Your task to perform on an android device: check android version Image 0: 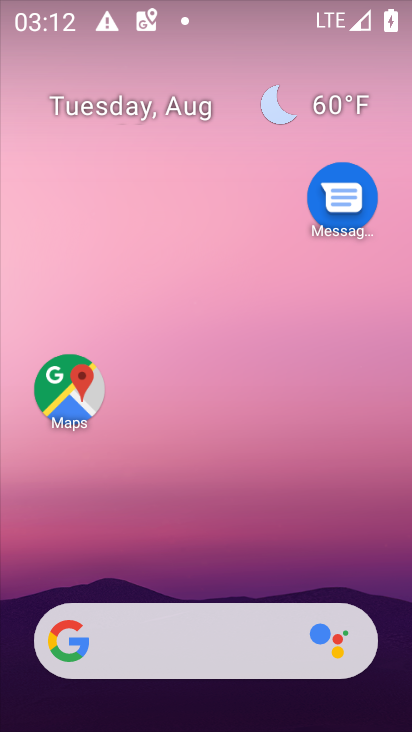
Step 0: drag from (190, 590) to (233, 1)
Your task to perform on an android device: check android version Image 1: 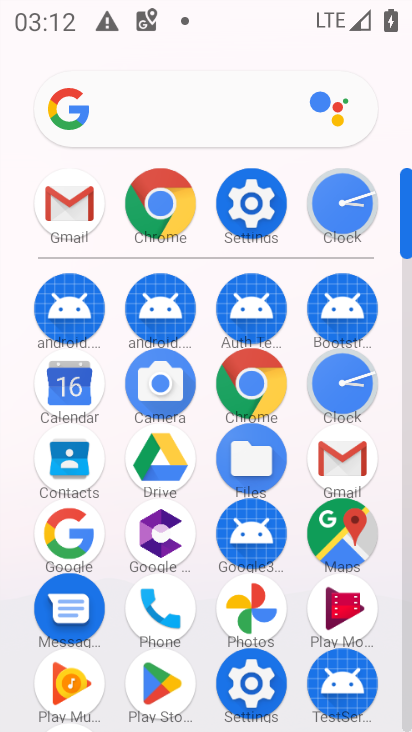
Step 1: click (249, 210)
Your task to perform on an android device: check android version Image 2: 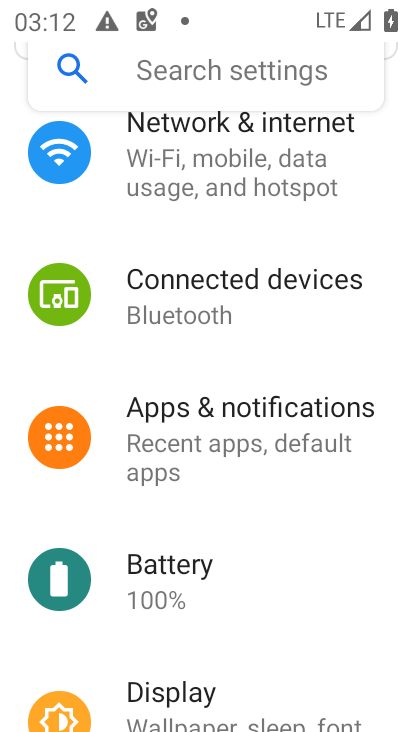
Step 2: drag from (249, 523) to (233, 21)
Your task to perform on an android device: check android version Image 3: 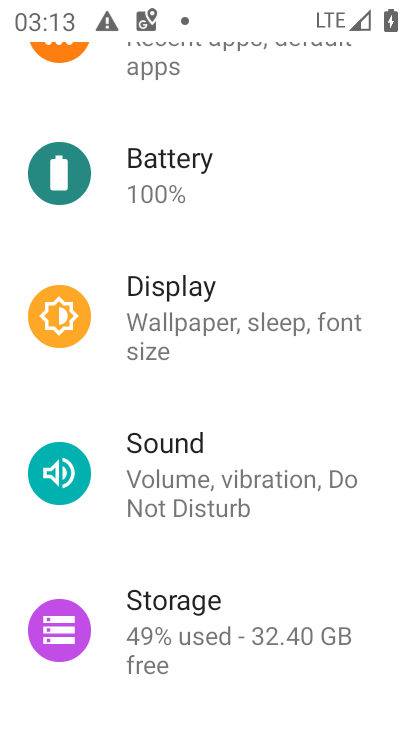
Step 3: drag from (228, 695) to (199, 80)
Your task to perform on an android device: check android version Image 4: 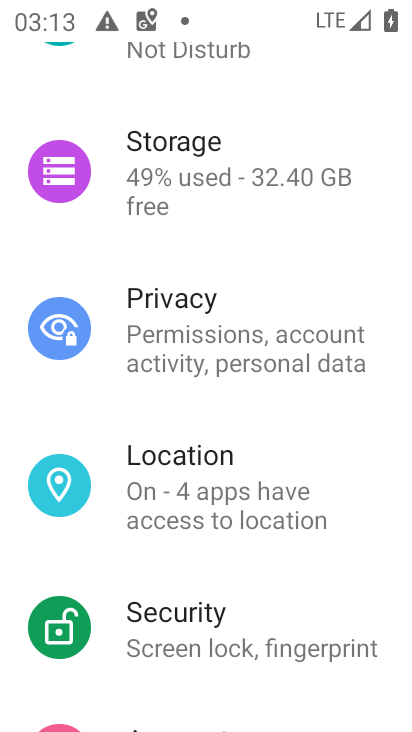
Step 4: drag from (203, 694) to (229, 146)
Your task to perform on an android device: check android version Image 5: 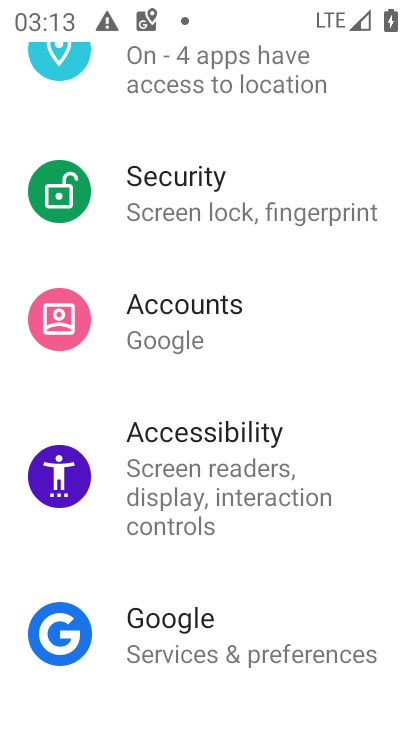
Step 5: drag from (242, 690) to (249, 241)
Your task to perform on an android device: check android version Image 6: 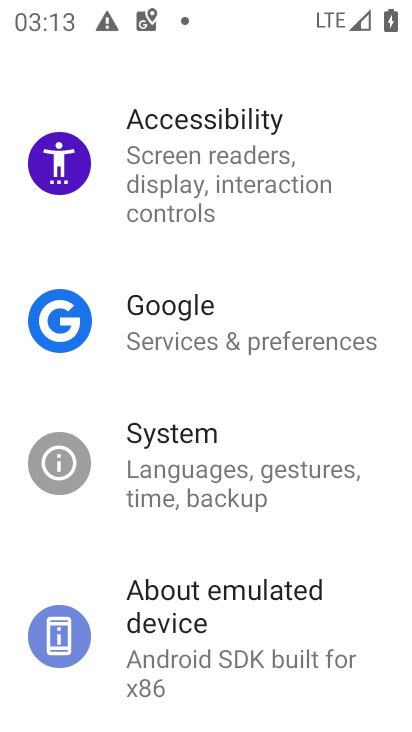
Step 6: click (248, 602)
Your task to perform on an android device: check android version Image 7: 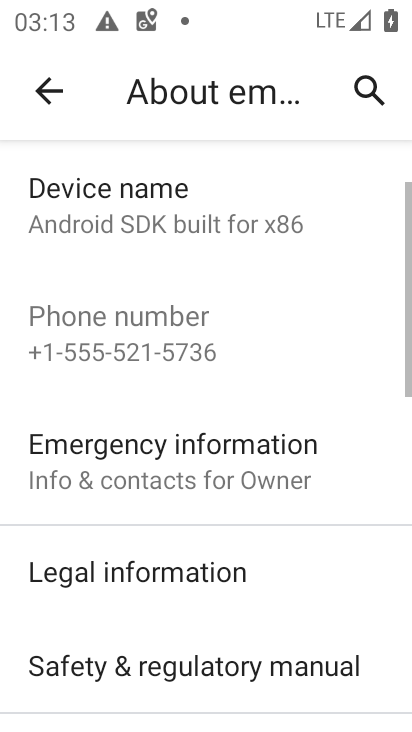
Step 7: drag from (241, 701) to (305, 130)
Your task to perform on an android device: check android version Image 8: 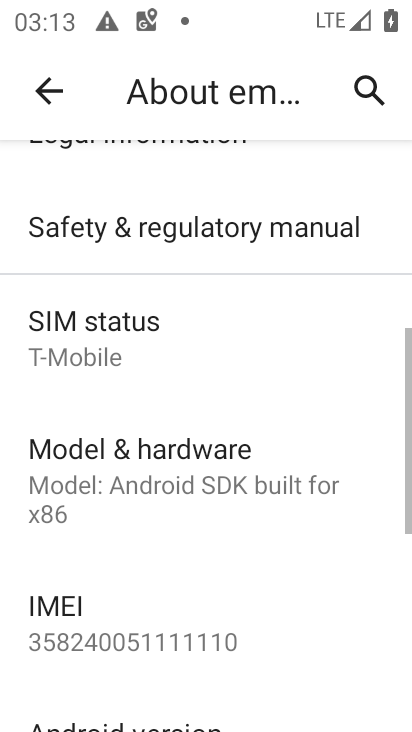
Step 8: drag from (216, 583) to (236, 176)
Your task to perform on an android device: check android version Image 9: 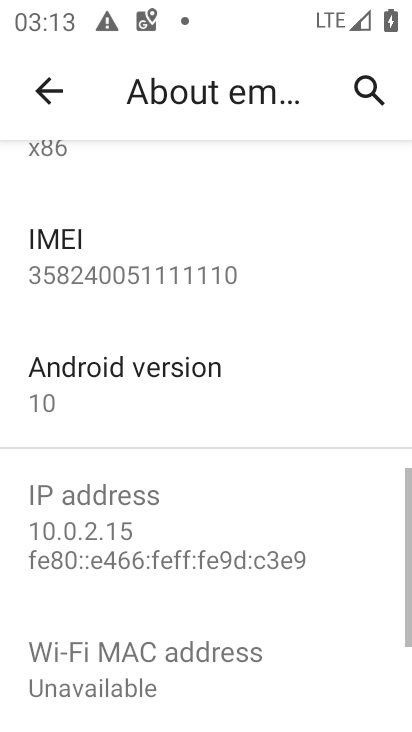
Step 9: click (139, 405)
Your task to perform on an android device: check android version Image 10: 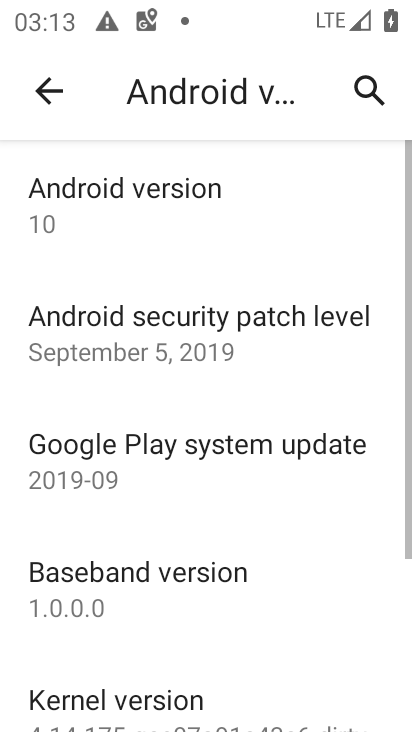
Step 10: task complete